Your task to perform on an android device: stop showing notifications on the lock screen Image 0: 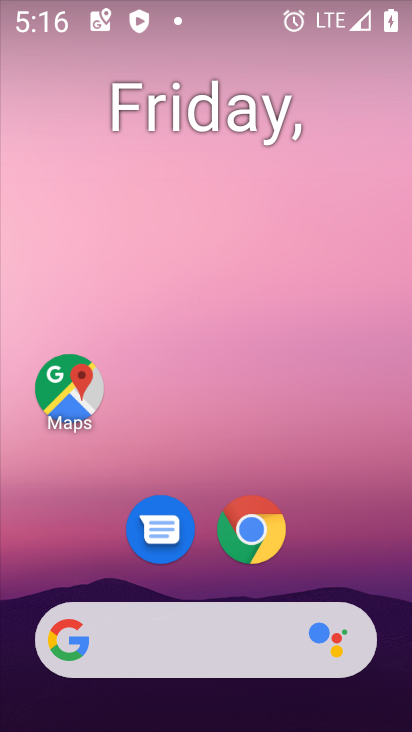
Step 0: drag from (343, 567) to (189, 50)
Your task to perform on an android device: stop showing notifications on the lock screen Image 1: 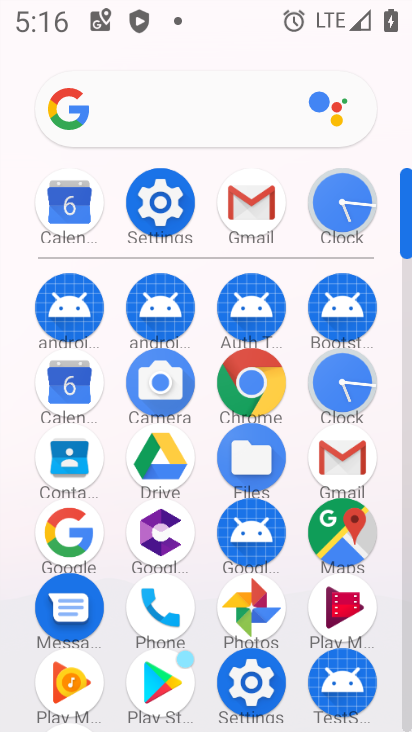
Step 1: click (158, 217)
Your task to perform on an android device: stop showing notifications on the lock screen Image 2: 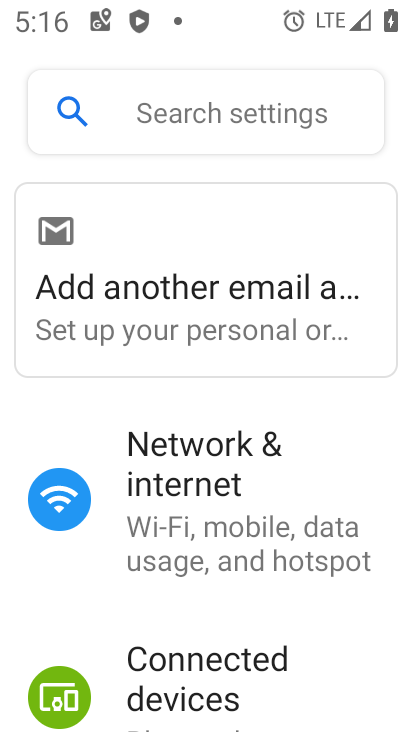
Step 2: drag from (219, 632) to (213, 240)
Your task to perform on an android device: stop showing notifications on the lock screen Image 3: 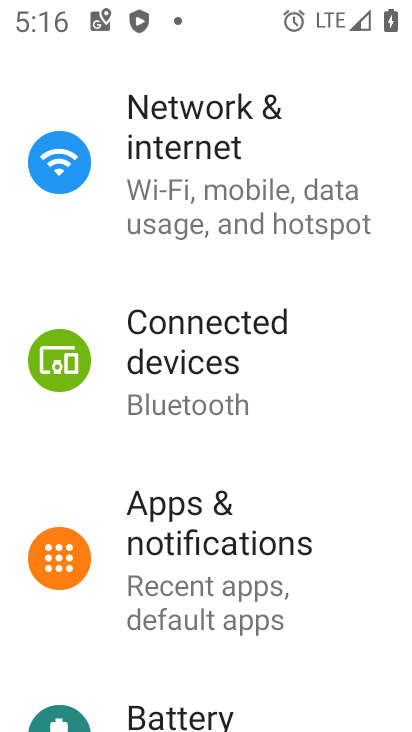
Step 3: click (176, 537)
Your task to perform on an android device: stop showing notifications on the lock screen Image 4: 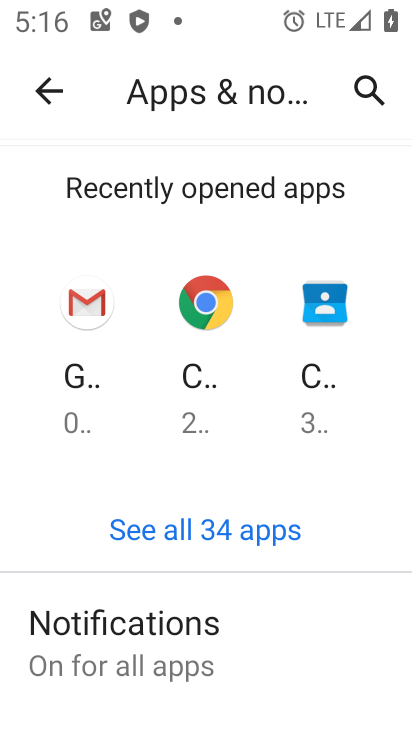
Step 4: drag from (247, 655) to (218, 199)
Your task to perform on an android device: stop showing notifications on the lock screen Image 5: 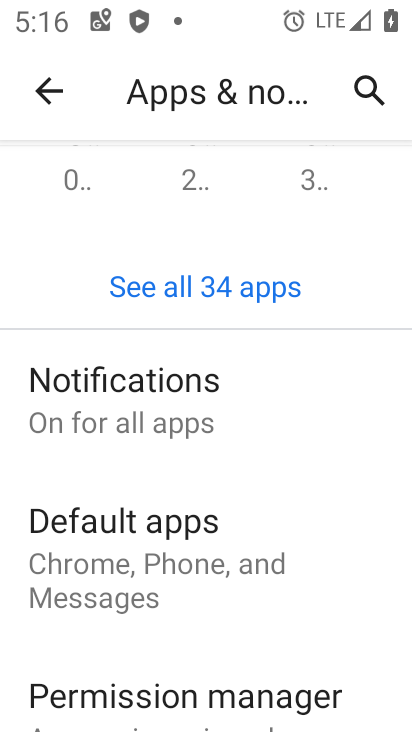
Step 5: click (122, 385)
Your task to perform on an android device: stop showing notifications on the lock screen Image 6: 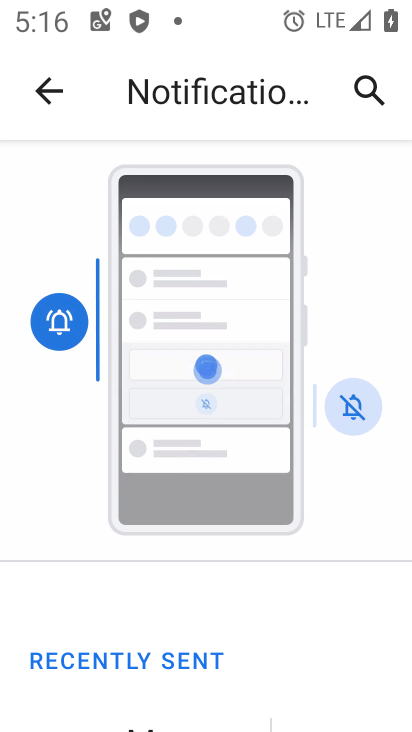
Step 6: drag from (267, 669) to (214, 248)
Your task to perform on an android device: stop showing notifications on the lock screen Image 7: 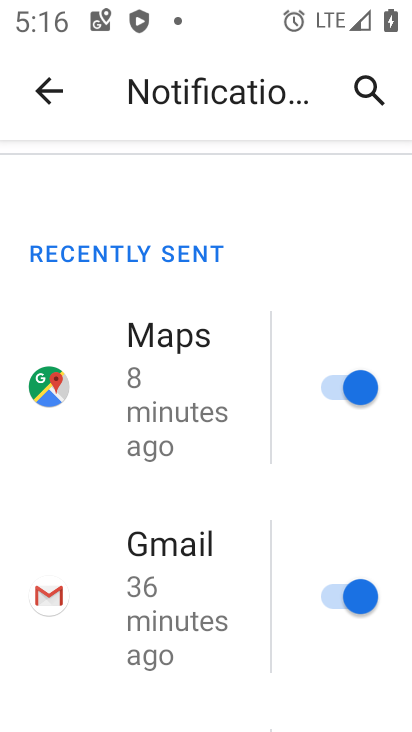
Step 7: drag from (218, 680) to (199, 250)
Your task to perform on an android device: stop showing notifications on the lock screen Image 8: 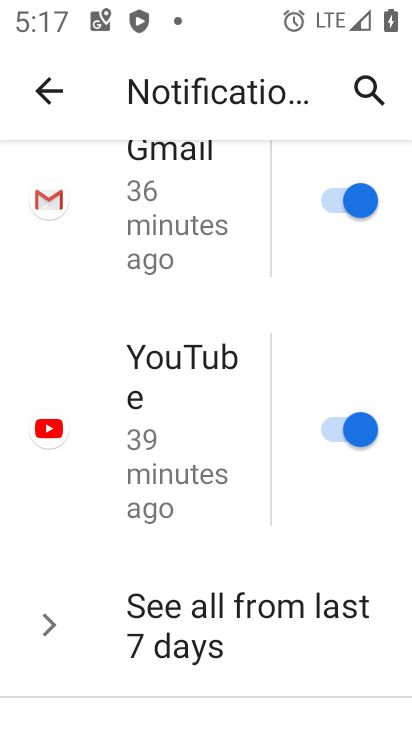
Step 8: drag from (222, 694) to (207, 359)
Your task to perform on an android device: stop showing notifications on the lock screen Image 9: 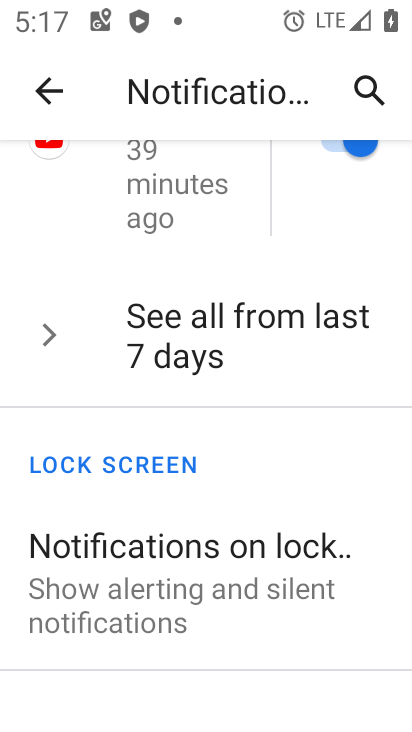
Step 9: click (191, 575)
Your task to perform on an android device: stop showing notifications on the lock screen Image 10: 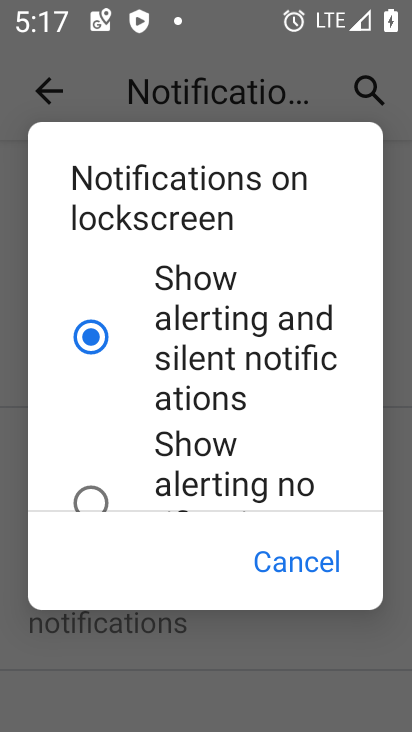
Step 10: drag from (297, 448) to (219, 122)
Your task to perform on an android device: stop showing notifications on the lock screen Image 11: 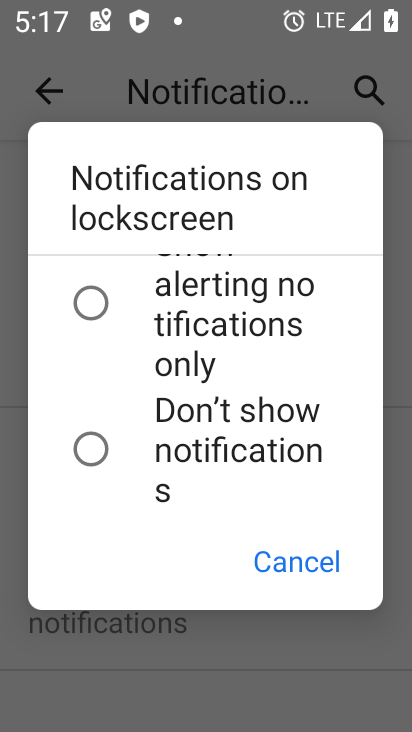
Step 11: click (93, 455)
Your task to perform on an android device: stop showing notifications on the lock screen Image 12: 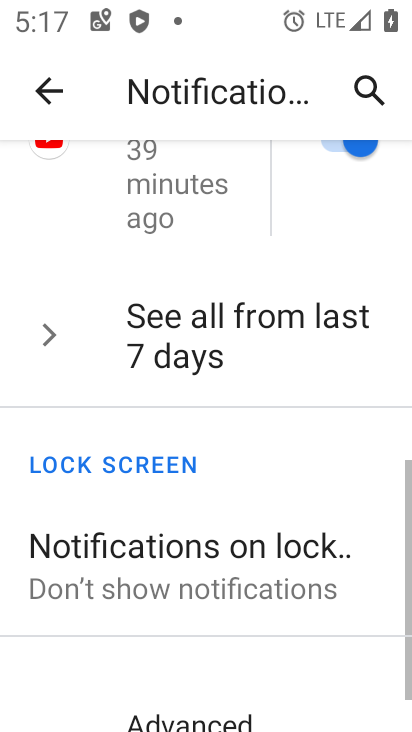
Step 12: task complete